Your task to perform on an android device: find photos in the google photos app Image 0: 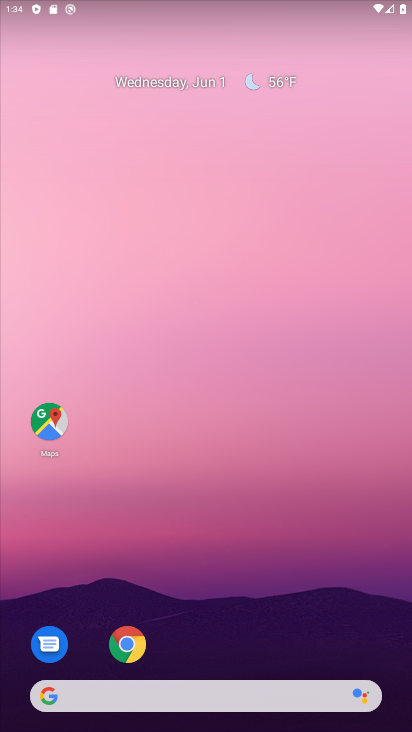
Step 0: drag from (206, 680) to (163, 231)
Your task to perform on an android device: find photos in the google photos app Image 1: 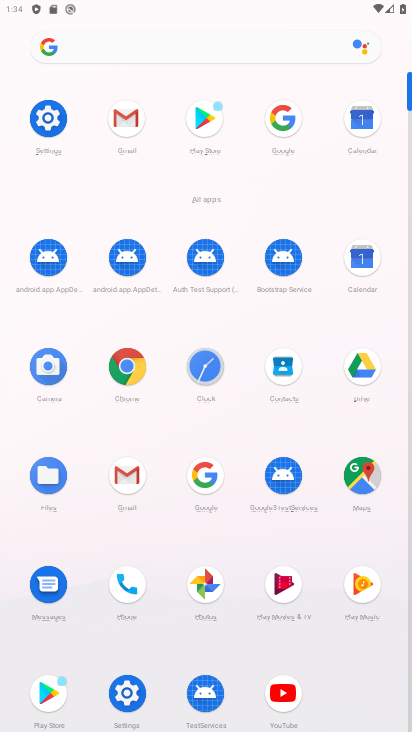
Step 1: click (208, 586)
Your task to perform on an android device: find photos in the google photos app Image 2: 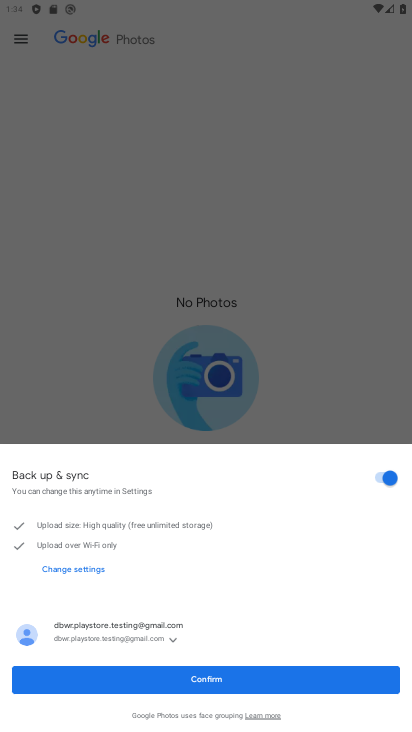
Step 2: click (192, 681)
Your task to perform on an android device: find photos in the google photos app Image 3: 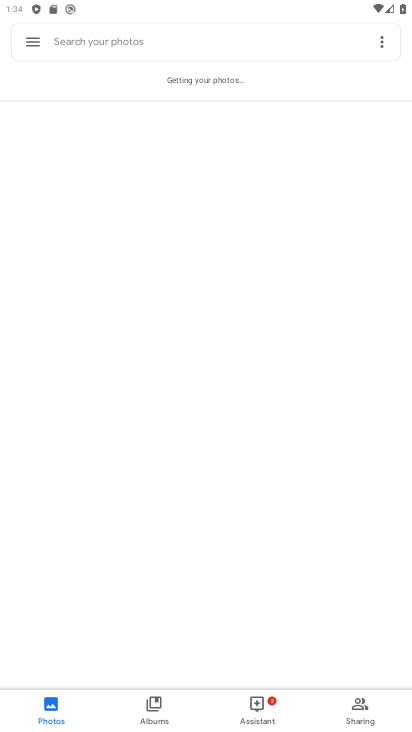
Step 3: click (97, 36)
Your task to perform on an android device: find photos in the google photos app Image 4: 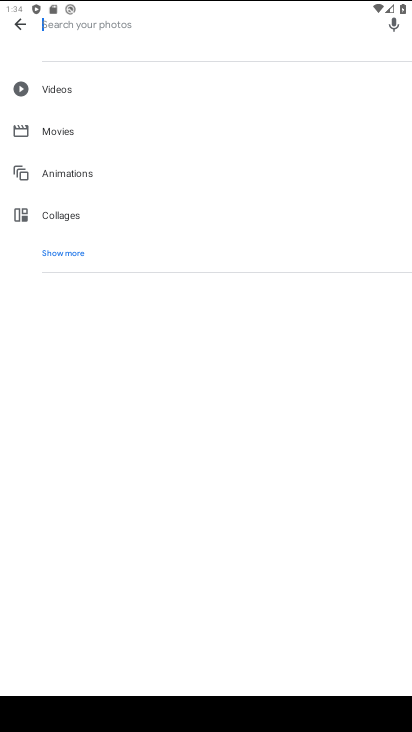
Step 4: type "lipi"
Your task to perform on an android device: find photos in the google photos app Image 5: 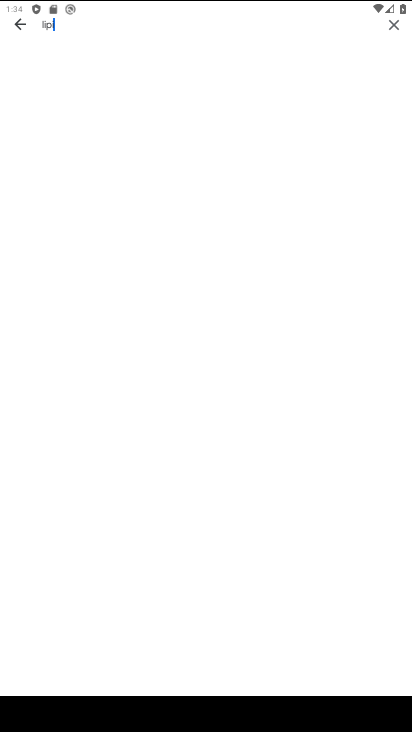
Step 5: task complete